Your task to perform on an android device: toggle notification dots Image 0: 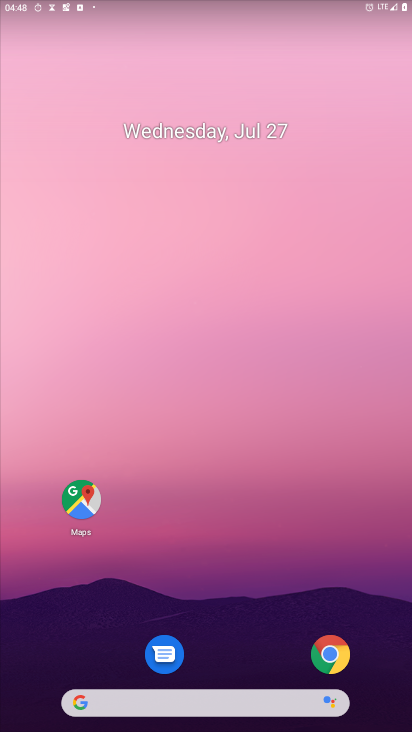
Step 0: drag from (195, 657) to (267, 16)
Your task to perform on an android device: toggle notification dots Image 1: 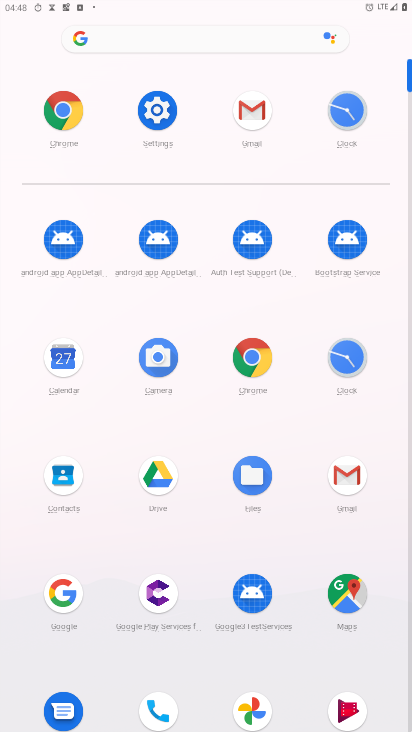
Step 1: click (160, 109)
Your task to perform on an android device: toggle notification dots Image 2: 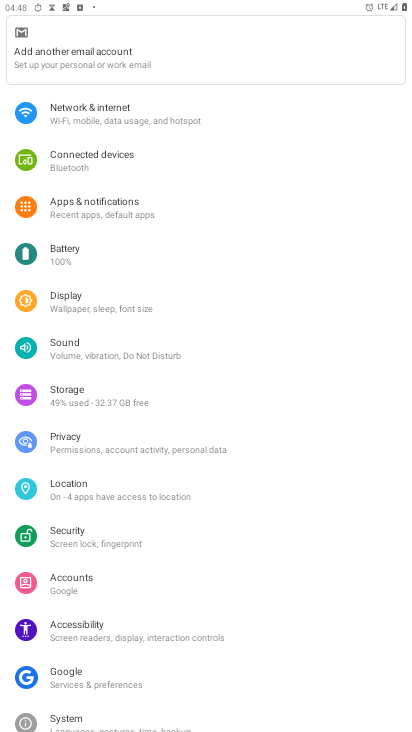
Step 2: click (120, 206)
Your task to perform on an android device: toggle notification dots Image 3: 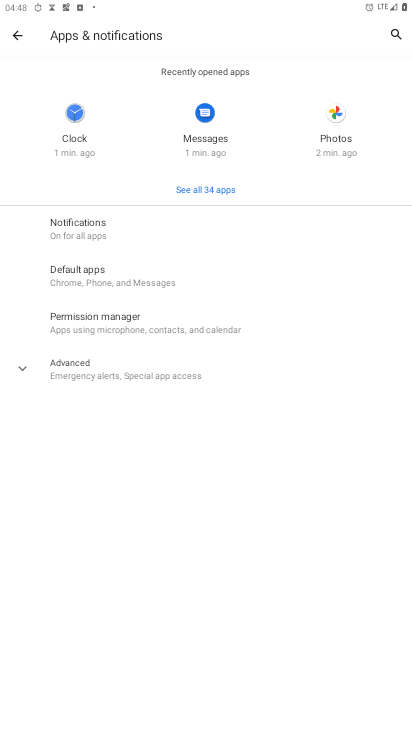
Step 3: click (100, 234)
Your task to perform on an android device: toggle notification dots Image 4: 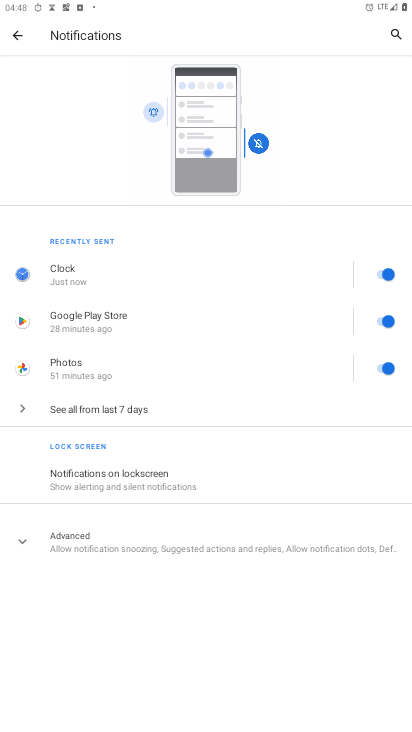
Step 4: click (140, 523)
Your task to perform on an android device: toggle notification dots Image 5: 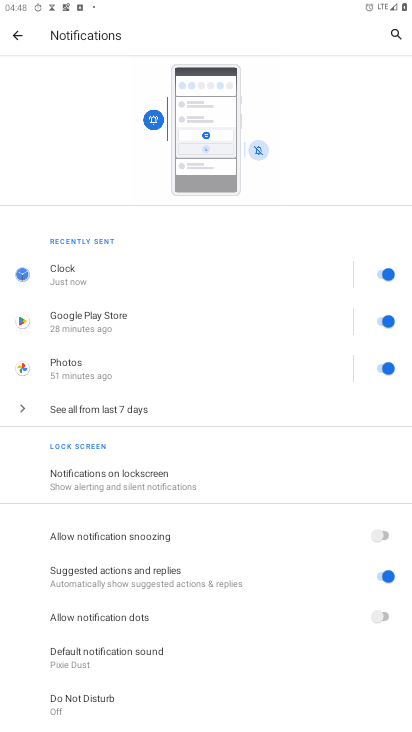
Step 5: click (386, 616)
Your task to perform on an android device: toggle notification dots Image 6: 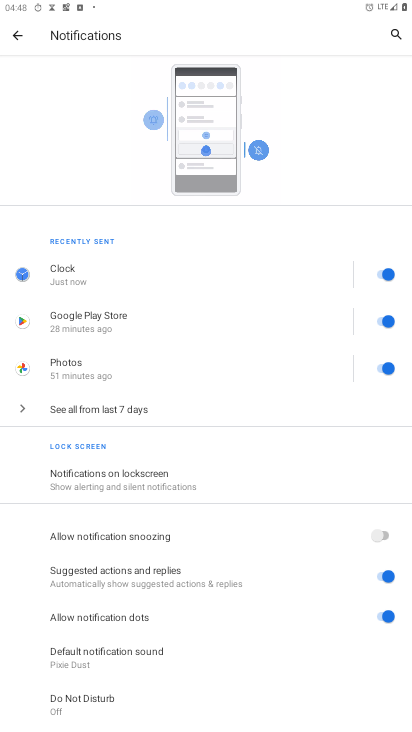
Step 6: task complete